Your task to perform on an android device: What's the weather today? Image 0: 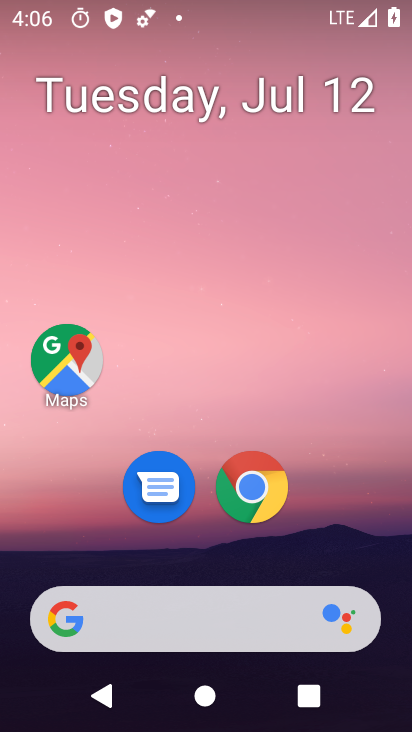
Step 0: drag from (144, 569) to (178, 198)
Your task to perform on an android device: What's the weather today? Image 1: 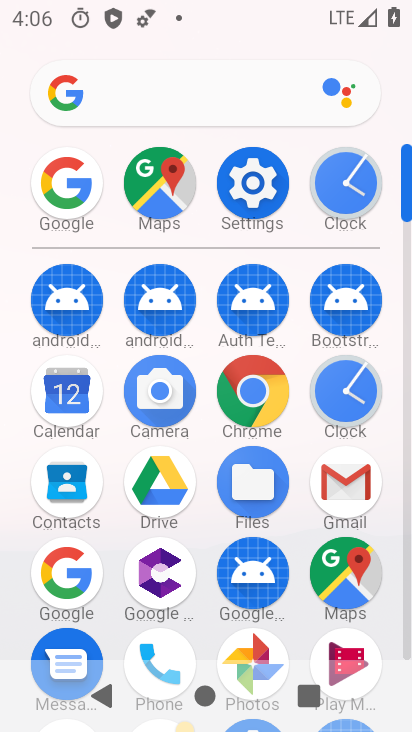
Step 1: drag from (263, 492) to (317, 150)
Your task to perform on an android device: What's the weather today? Image 2: 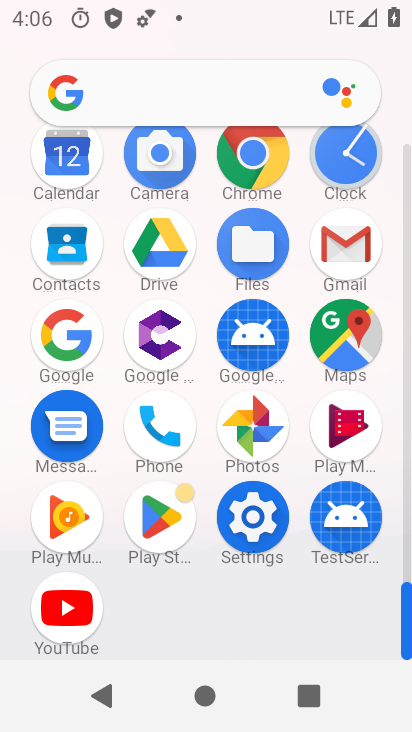
Step 2: click (77, 341)
Your task to perform on an android device: What's the weather today? Image 3: 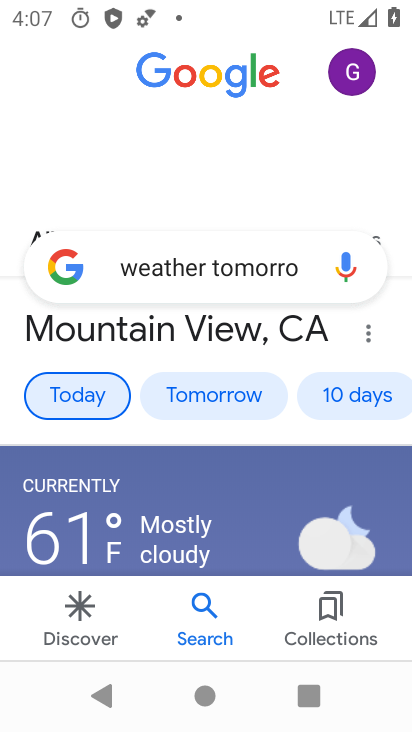
Step 3: click (233, 279)
Your task to perform on an android device: What's the weather today? Image 4: 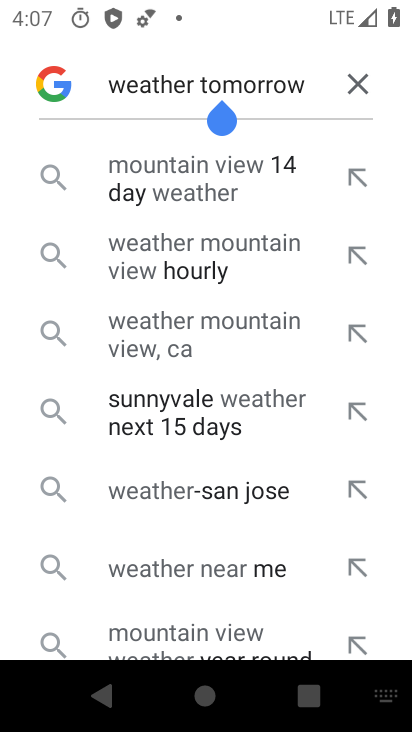
Step 4: click (311, 89)
Your task to perform on an android device: What's the weather today? Image 5: 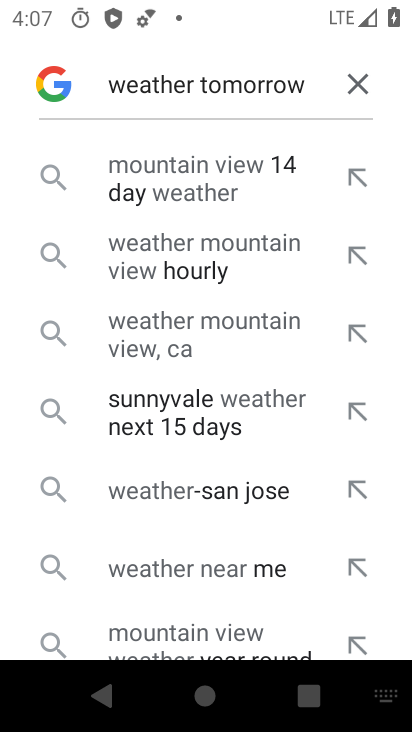
Step 5: click (366, 84)
Your task to perform on an android device: What's the weather today? Image 6: 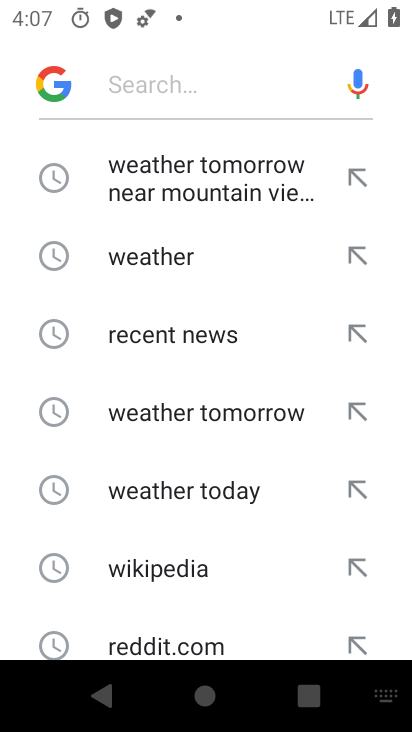
Step 6: type "weather today"
Your task to perform on an android device: What's the weather today? Image 7: 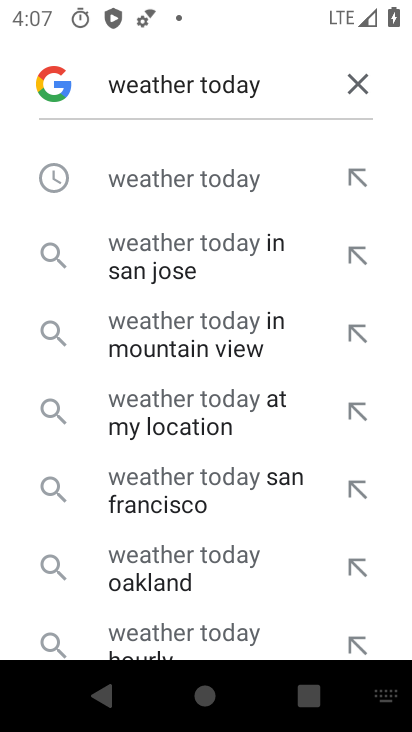
Step 7: click (261, 198)
Your task to perform on an android device: What's the weather today? Image 8: 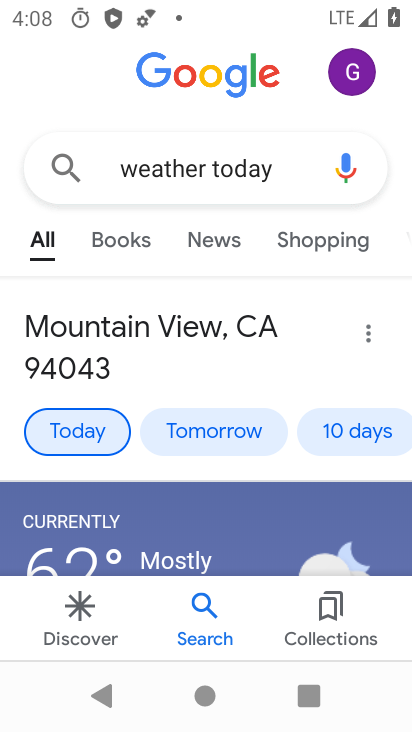
Step 8: task complete